Your task to perform on an android device: What's on my calendar today? Image 0: 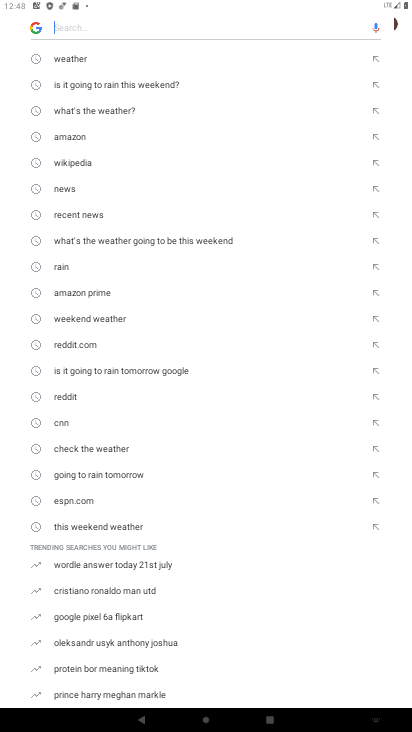
Step 0: press home button
Your task to perform on an android device: What's on my calendar today? Image 1: 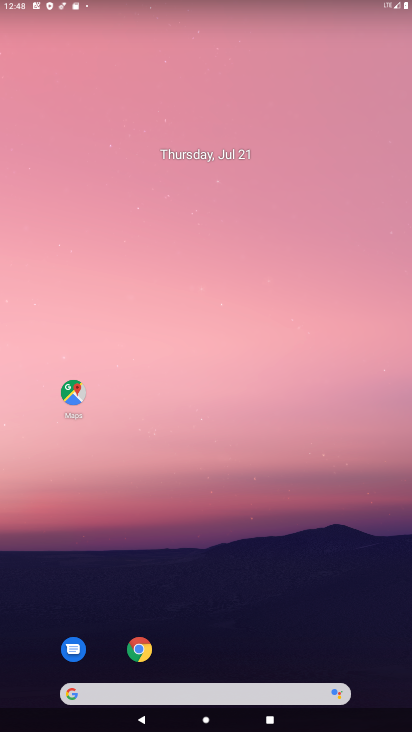
Step 1: drag from (228, 725) to (220, 305)
Your task to perform on an android device: What's on my calendar today? Image 2: 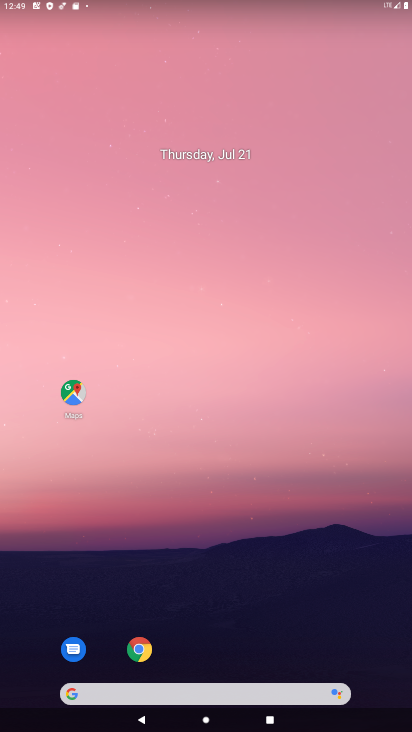
Step 2: drag from (233, 725) to (235, 107)
Your task to perform on an android device: What's on my calendar today? Image 3: 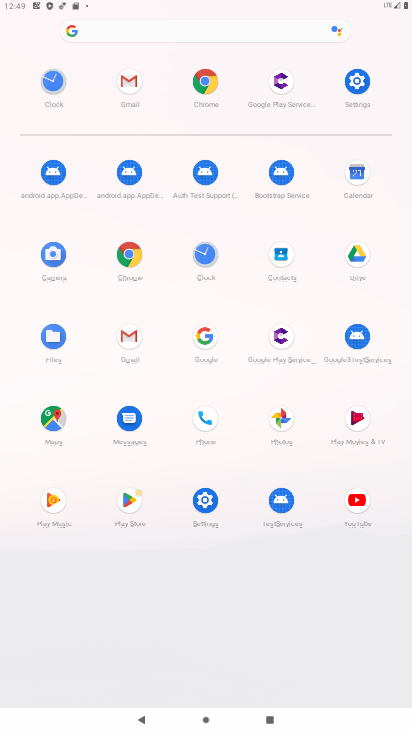
Step 3: click (353, 178)
Your task to perform on an android device: What's on my calendar today? Image 4: 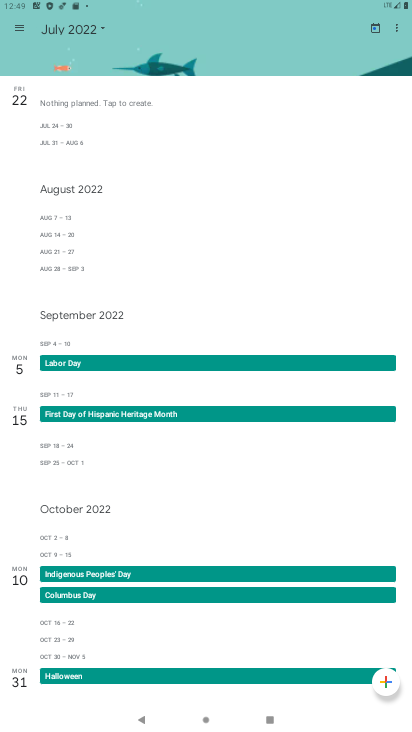
Step 4: task complete